Your task to perform on an android device: create a new album in the google photos Image 0: 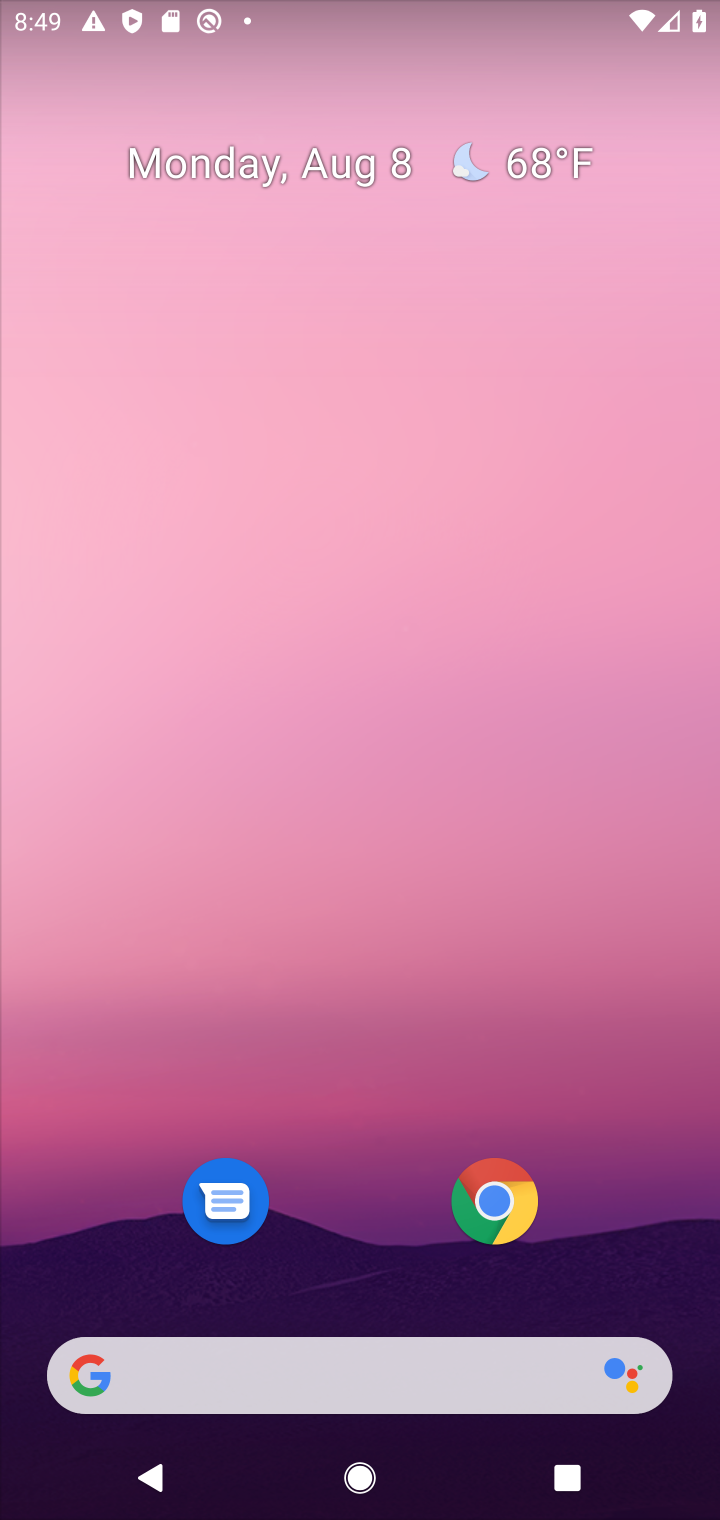
Step 0: press home button
Your task to perform on an android device: create a new album in the google photos Image 1: 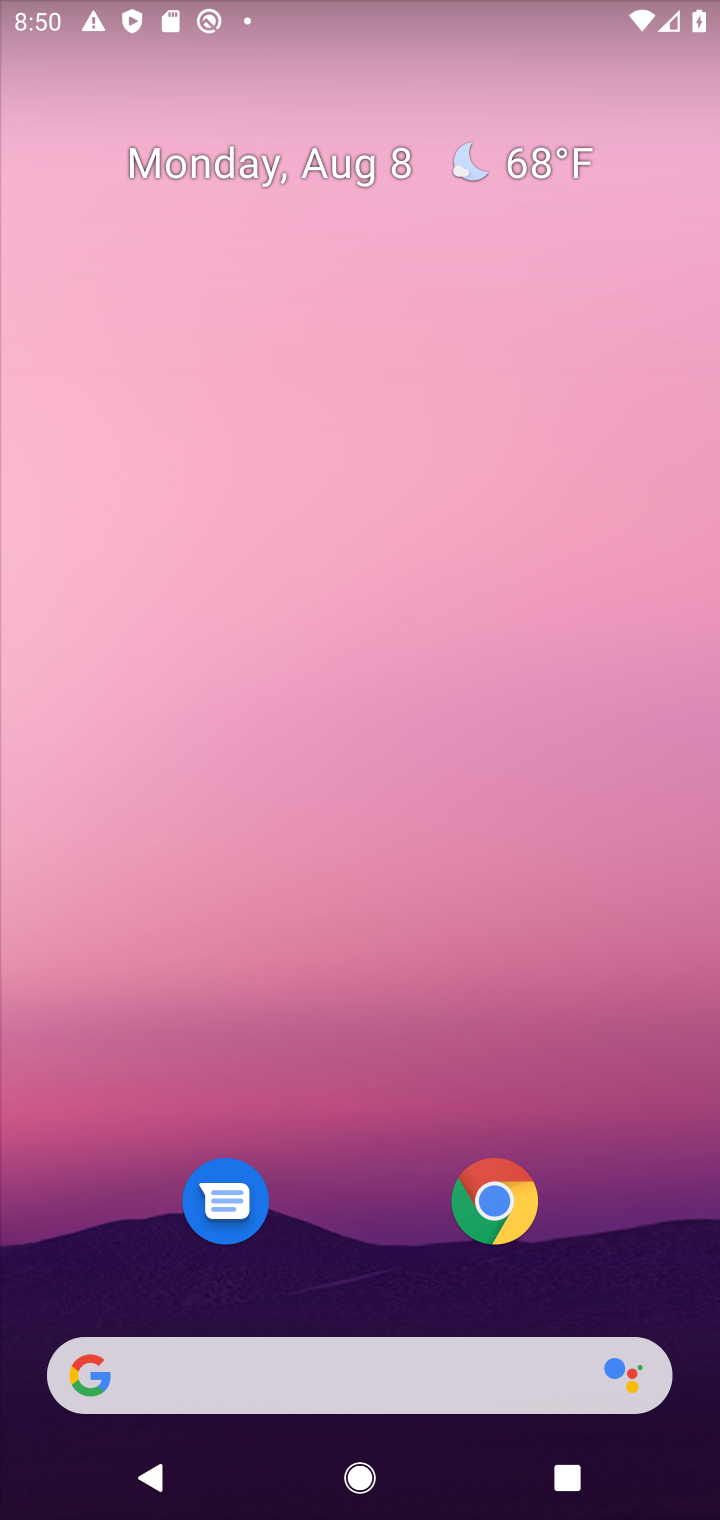
Step 1: drag from (633, 1225) to (672, 298)
Your task to perform on an android device: create a new album in the google photos Image 2: 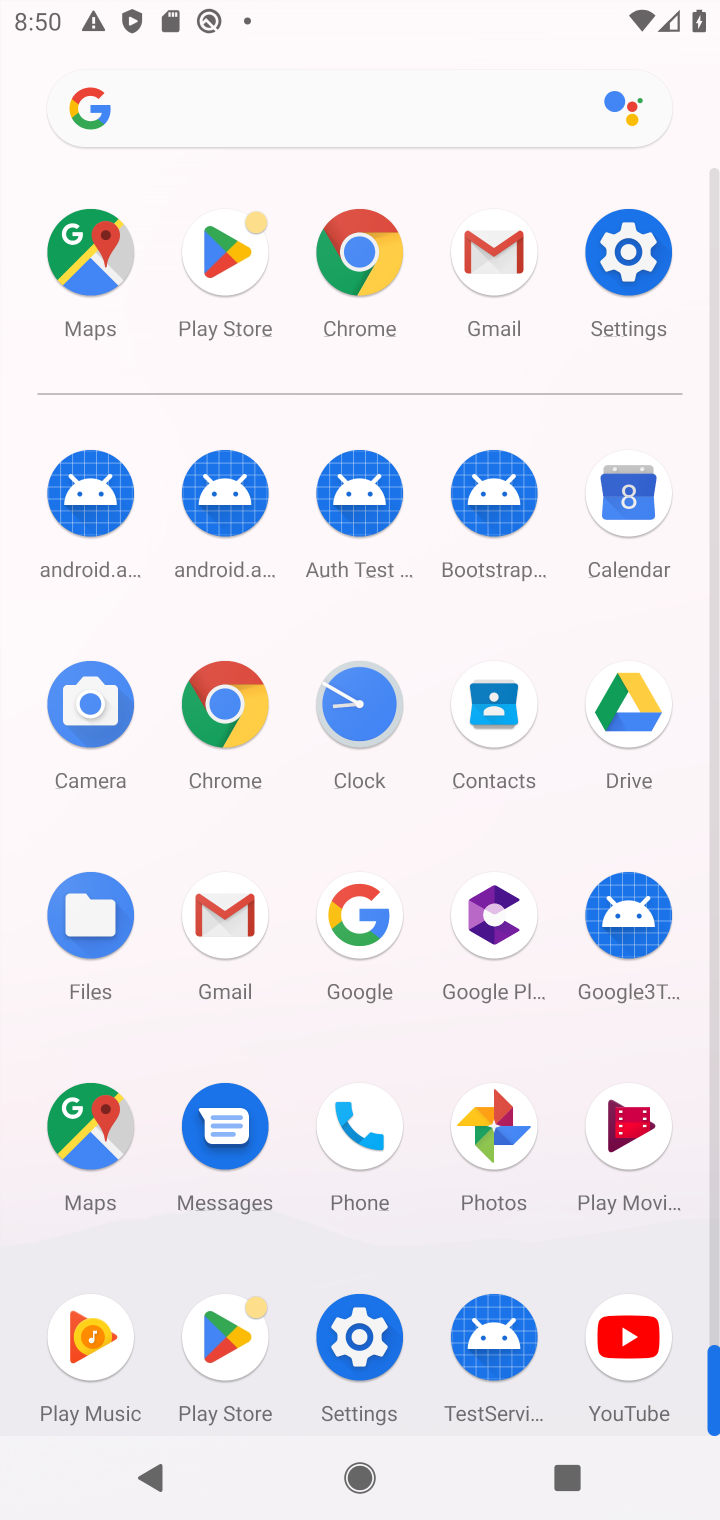
Step 2: click (491, 1149)
Your task to perform on an android device: create a new album in the google photos Image 3: 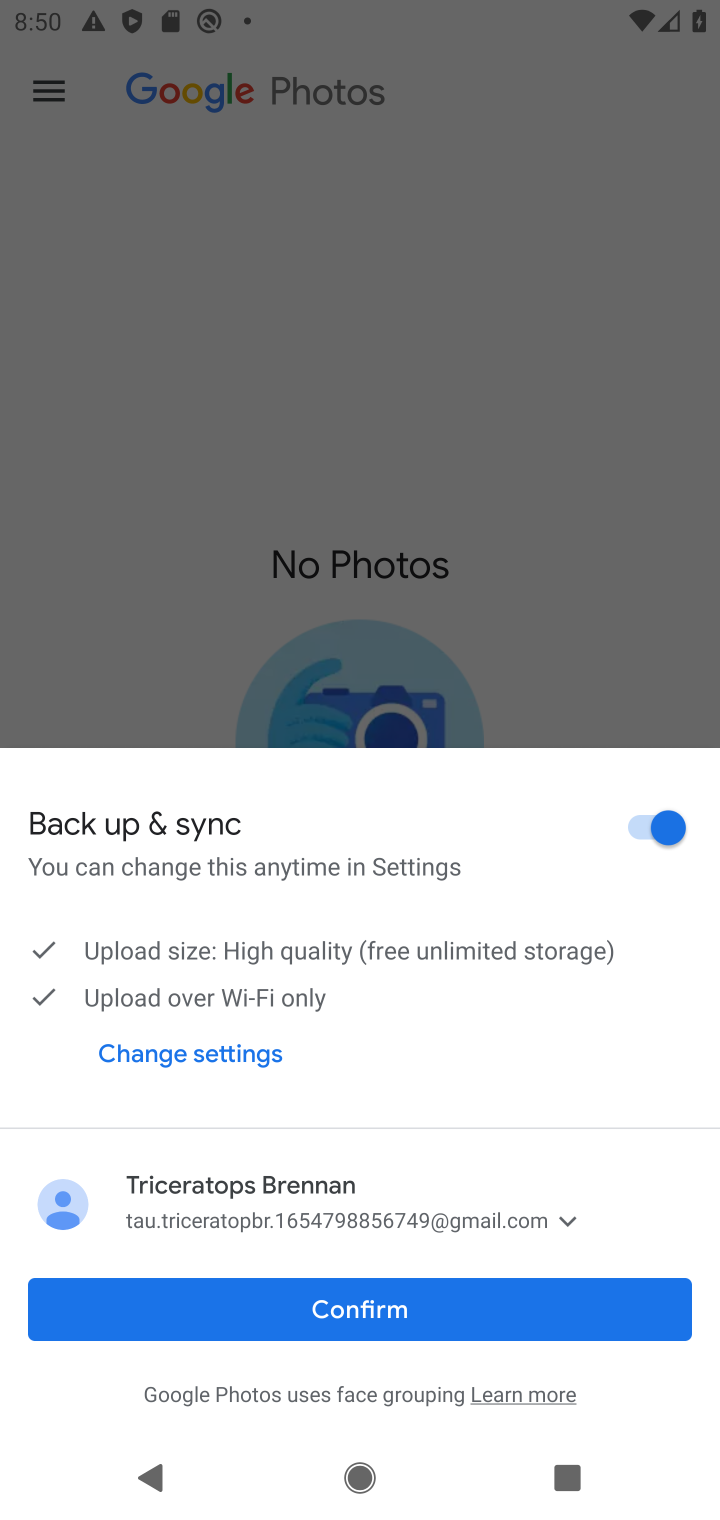
Step 3: click (466, 1293)
Your task to perform on an android device: create a new album in the google photos Image 4: 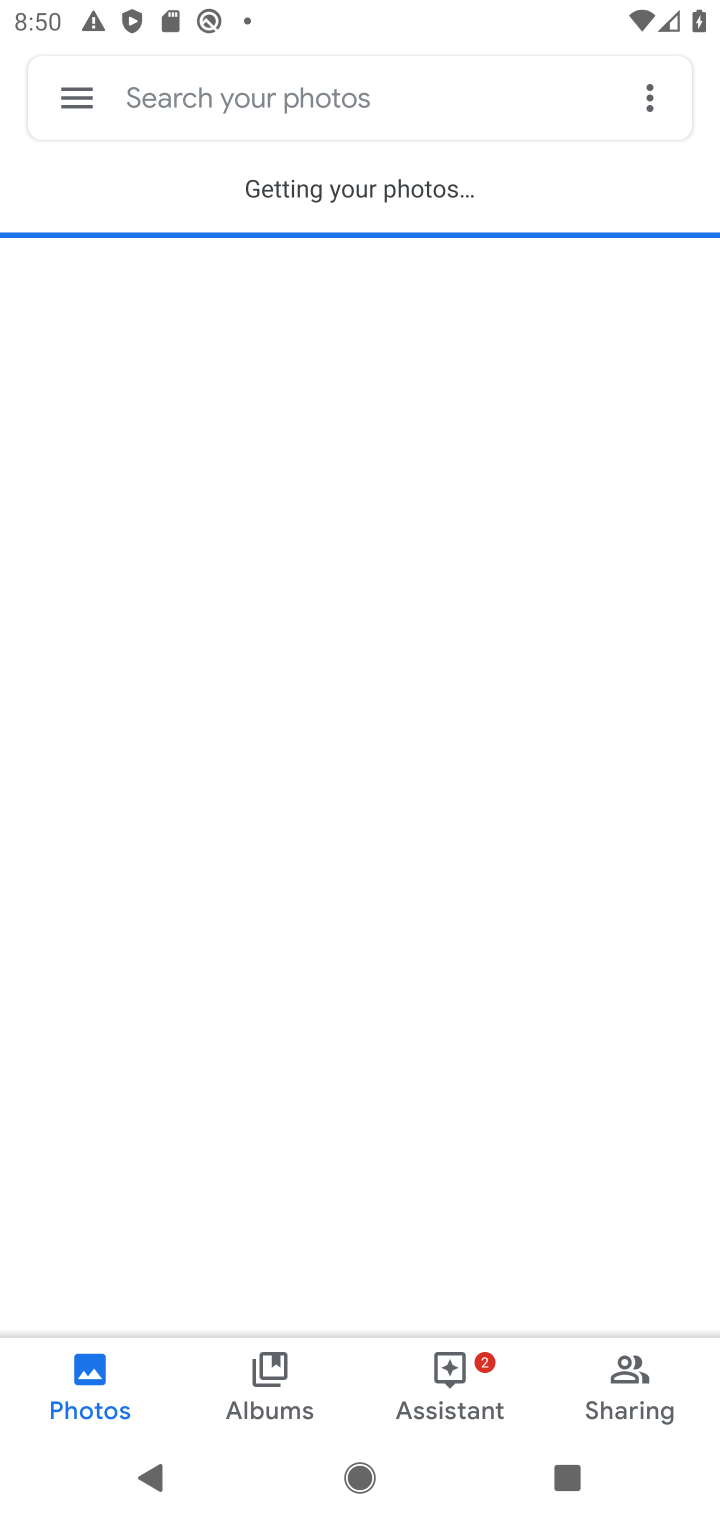
Step 4: click (651, 100)
Your task to perform on an android device: create a new album in the google photos Image 5: 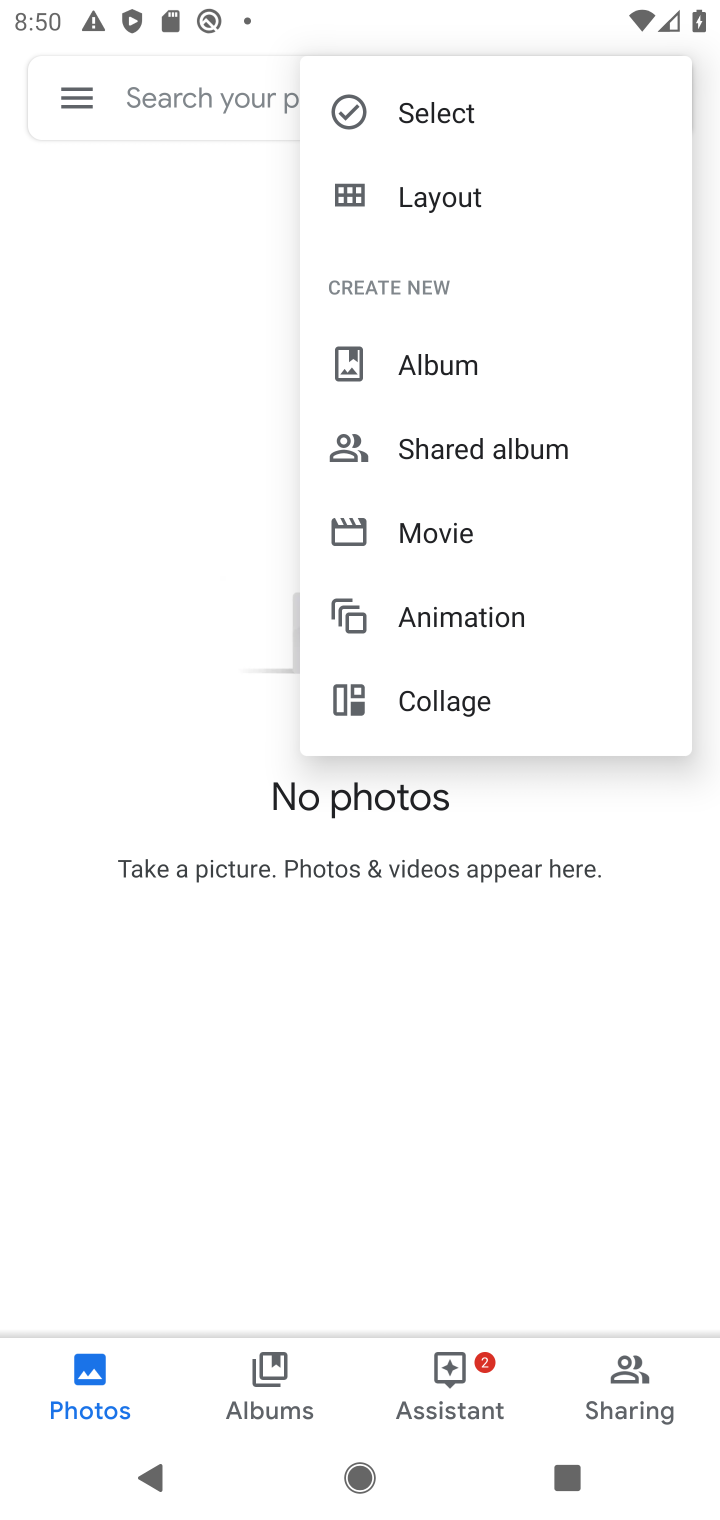
Step 5: click (453, 374)
Your task to perform on an android device: create a new album in the google photos Image 6: 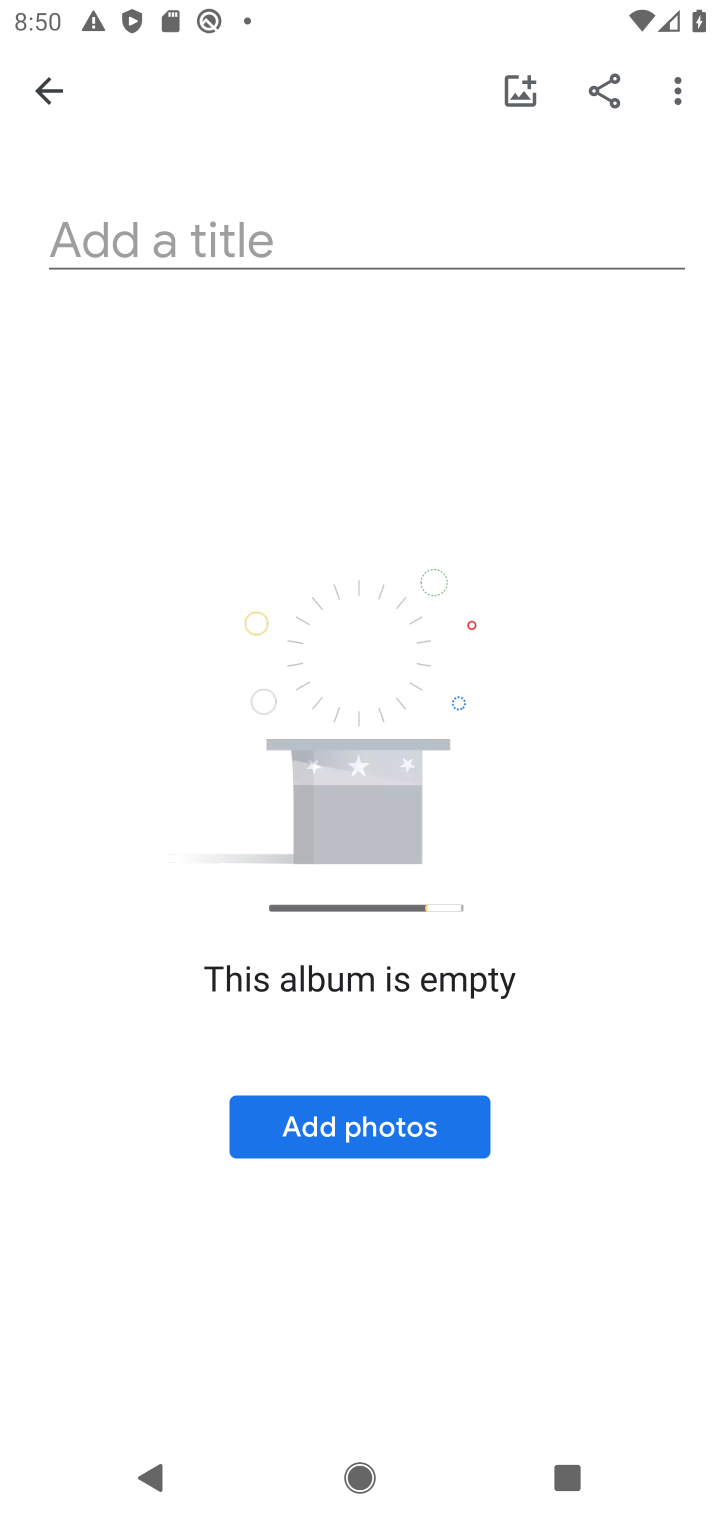
Step 6: click (343, 237)
Your task to perform on an android device: create a new album in the google photos Image 7: 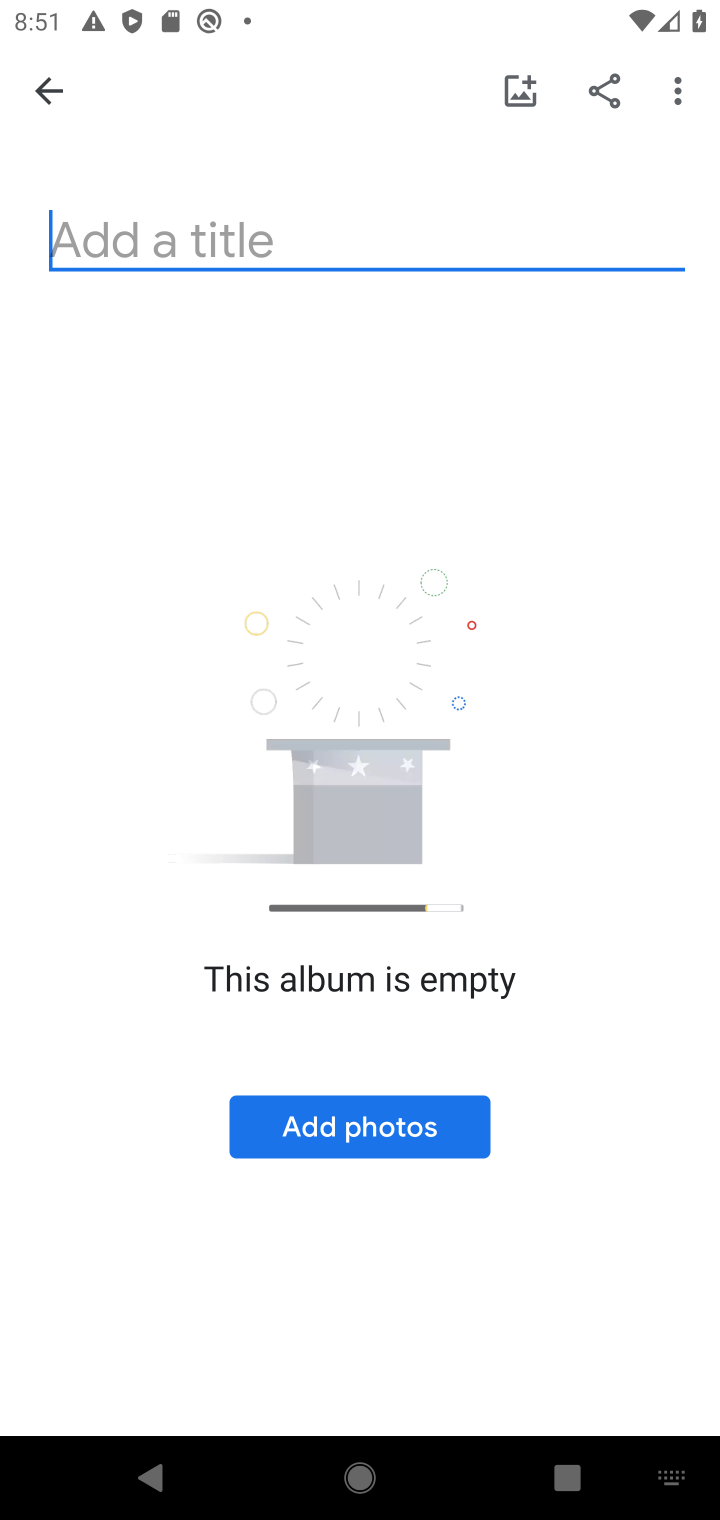
Step 7: type "fav"
Your task to perform on an android device: create a new album in the google photos Image 8: 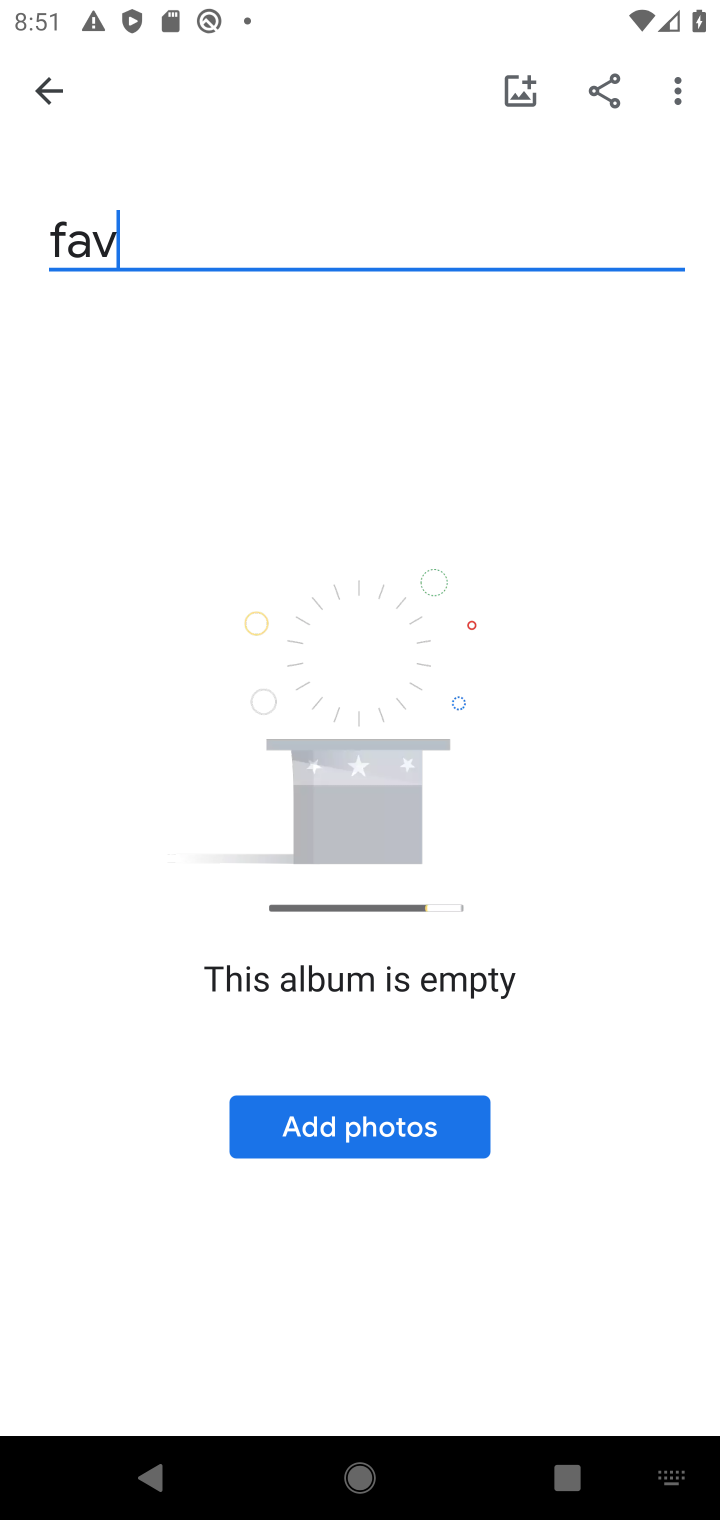
Step 8: click (370, 1134)
Your task to perform on an android device: create a new album in the google photos Image 9: 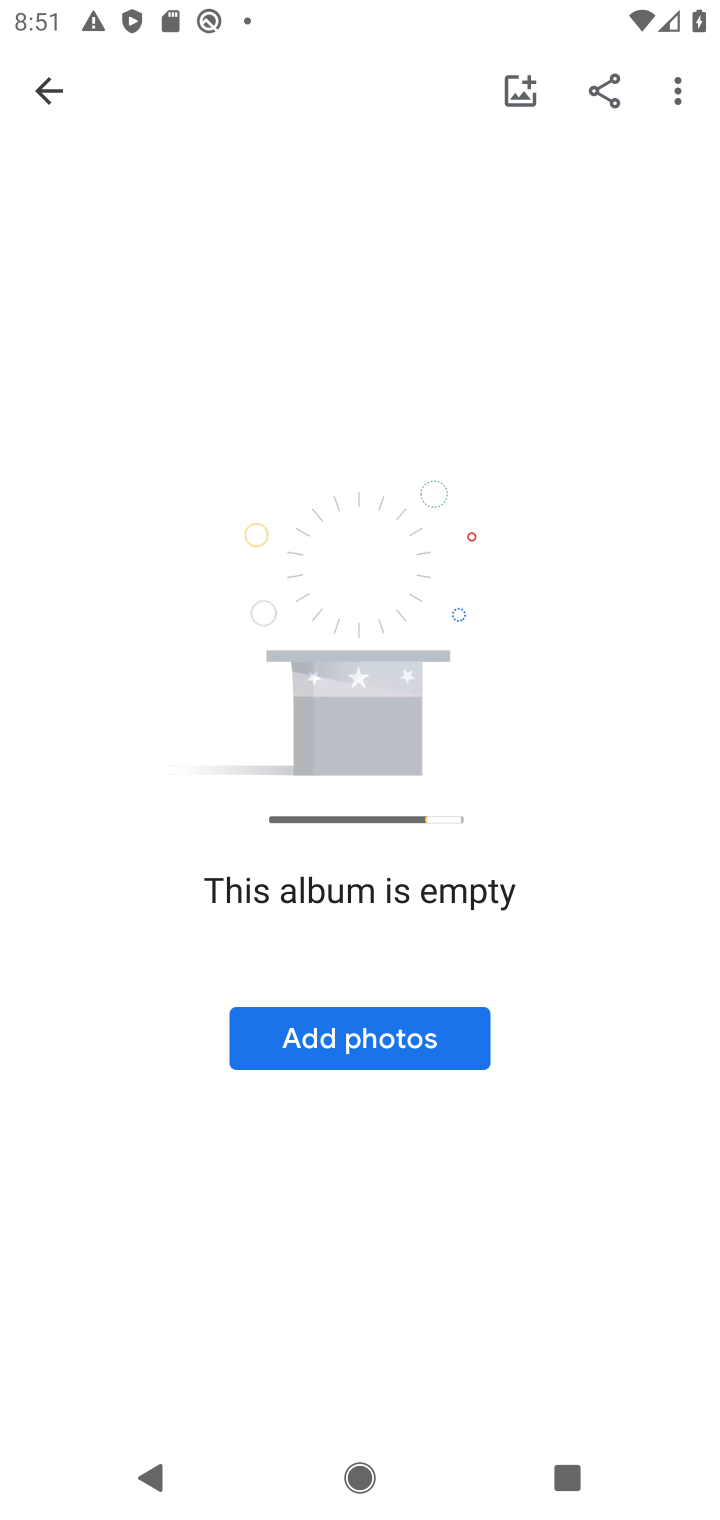
Step 9: click (377, 1043)
Your task to perform on an android device: create a new album in the google photos Image 10: 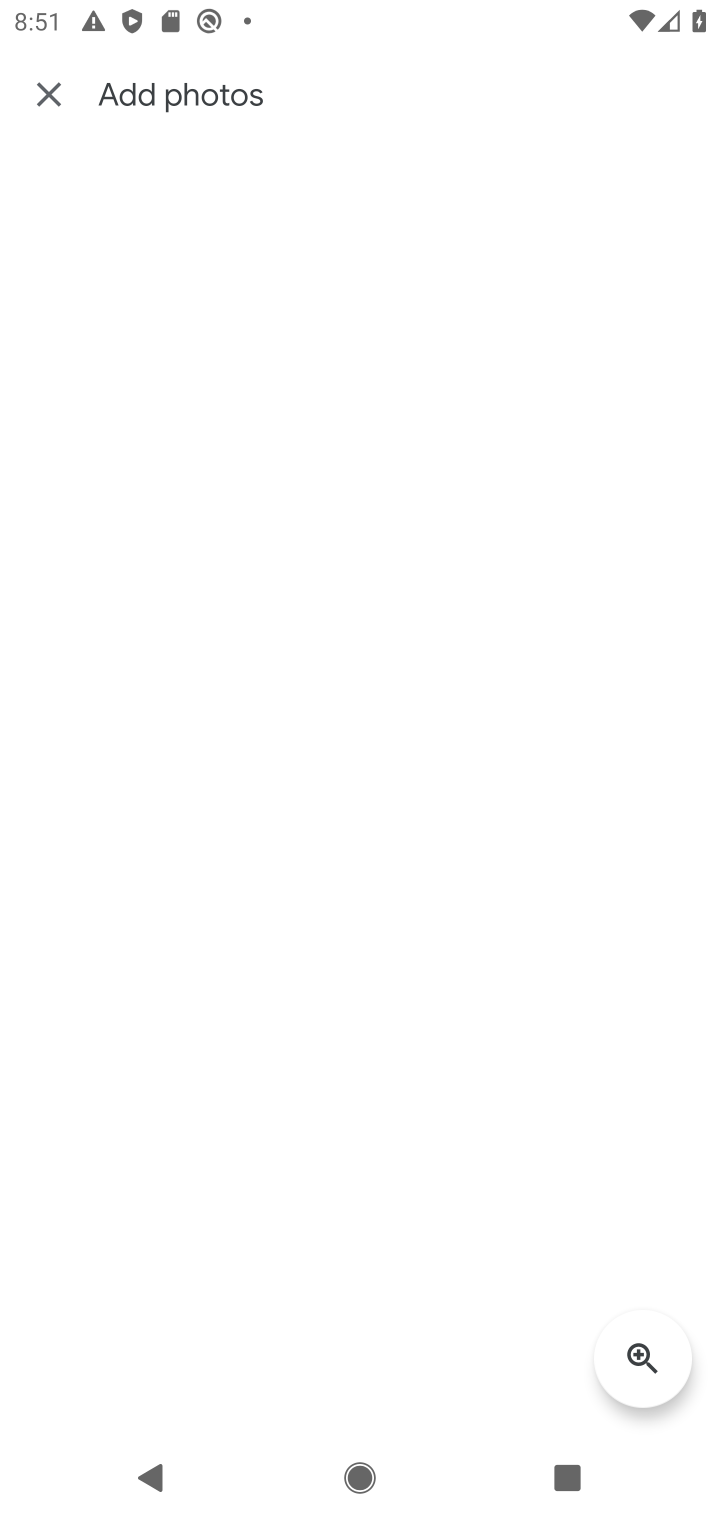
Step 10: task complete